Your task to perform on an android device: see sites visited before in the chrome app Image 0: 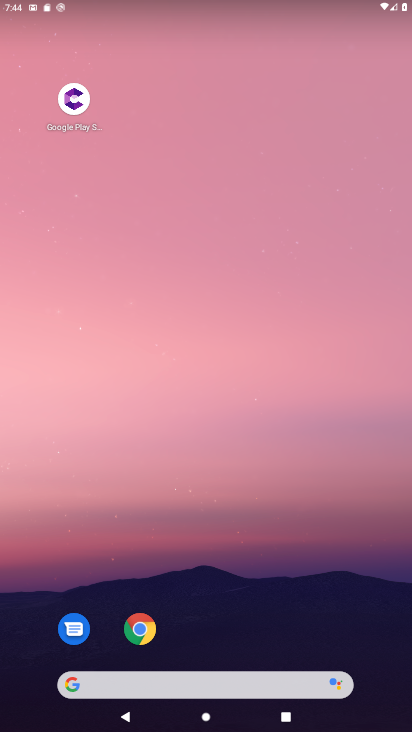
Step 0: click (139, 632)
Your task to perform on an android device: see sites visited before in the chrome app Image 1: 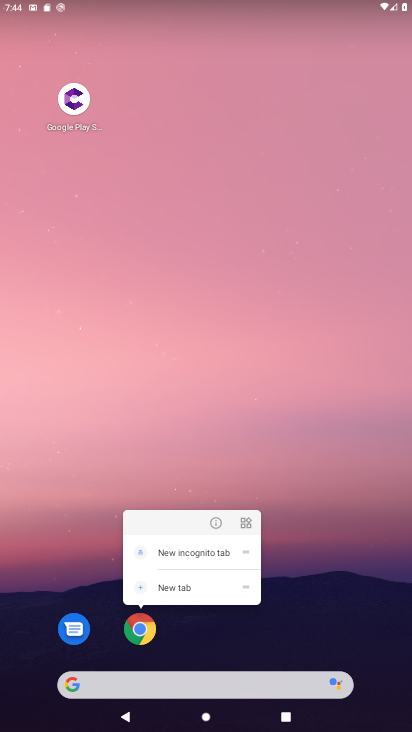
Step 1: click (135, 623)
Your task to perform on an android device: see sites visited before in the chrome app Image 2: 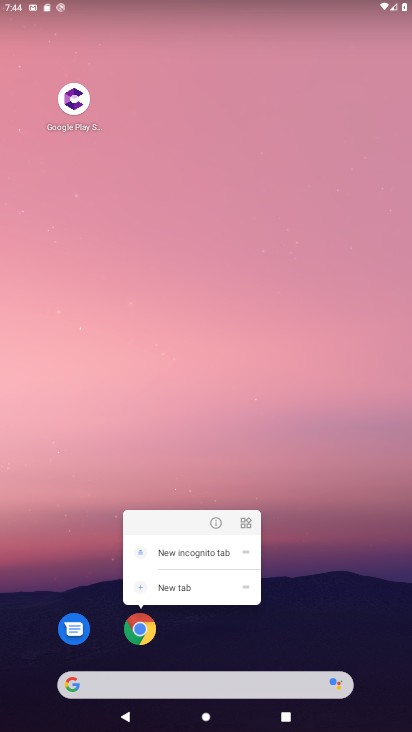
Step 2: click (136, 623)
Your task to perform on an android device: see sites visited before in the chrome app Image 3: 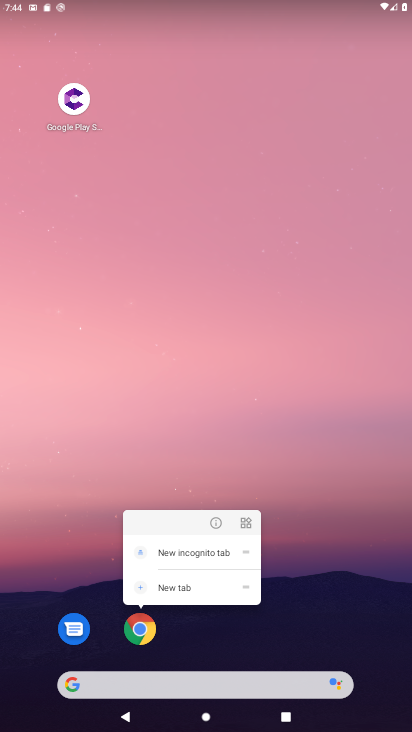
Step 3: click (216, 514)
Your task to perform on an android device: see sites visited before in the chrome app Image 4: 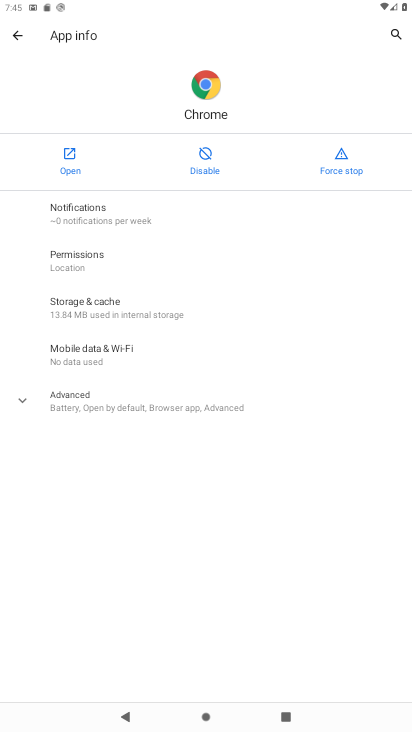
Step 4: click (64, 168)
Your task to perform on an android device: see sites visited before in the chrome app Image 5: 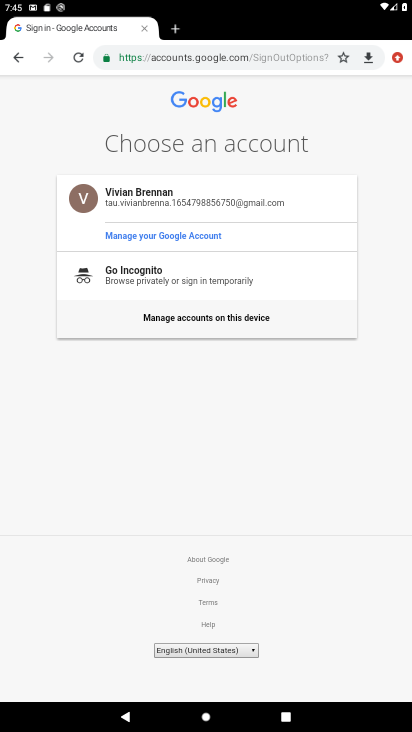
Step 5: click (148, 196)
Your task to perform on an android device: see sites visited before in the chrome app Image 6: 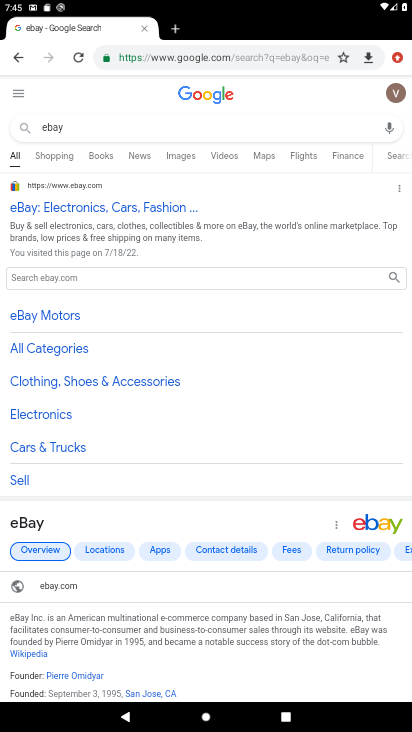
Step 6: click (398, 58)
Your task to perform on an android device: see sites visited before in the chrome app Image 7: 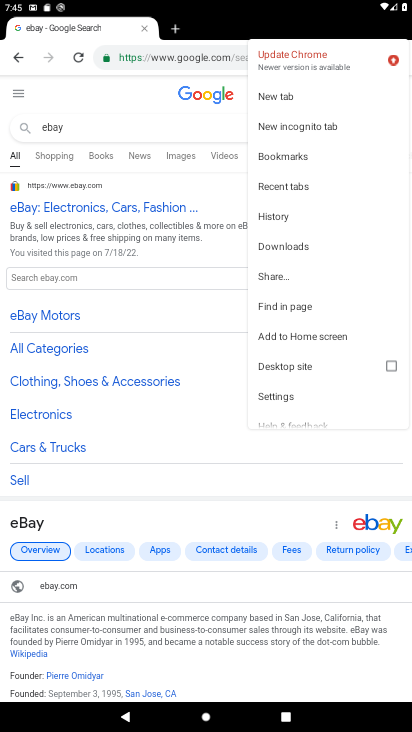
Step 7: click (298, 184)
Your task to perform on an android device: see sites visited before in the chrome app Image 8: 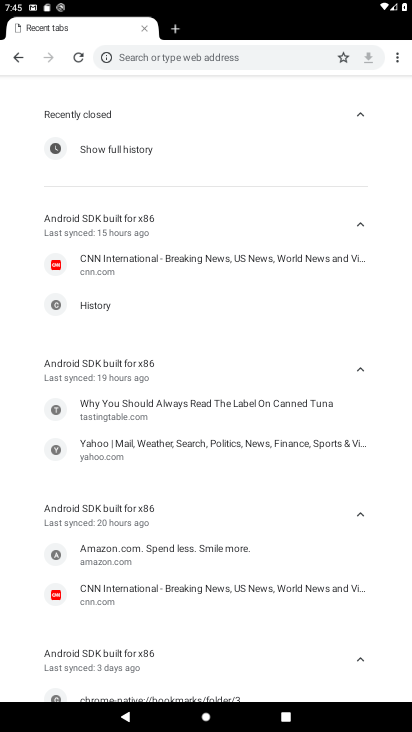
Step 8: task complete